Your task to perform on an android device: turn on location history Image 0: 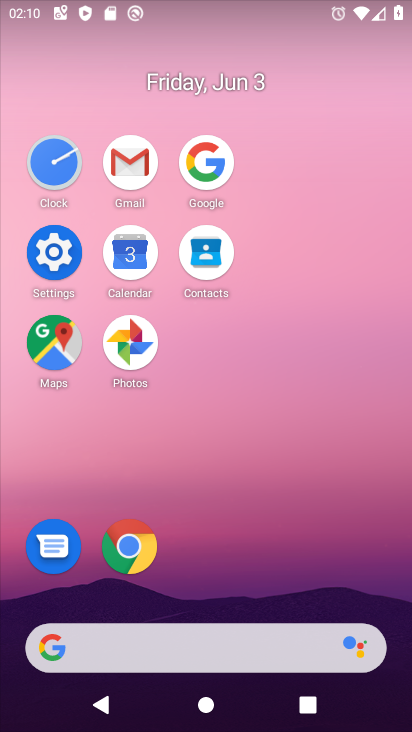
Step 0: click (56, 250)
Your task to perform on an android device: turn on location history Image 1: 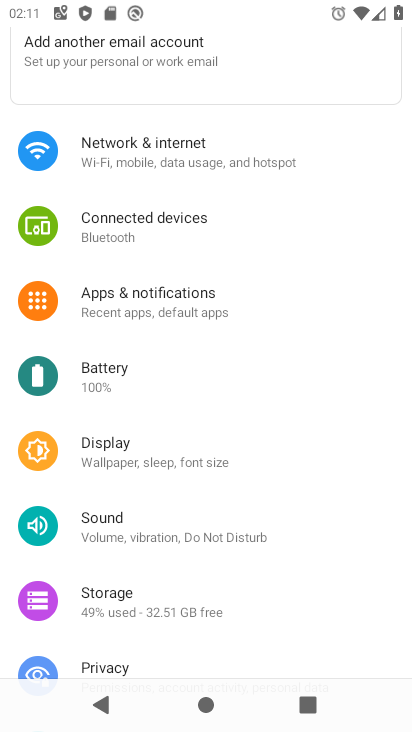
Step 1: drag from (362, 584) to (303, 201)
Your task to perform on an android device: turn on location history Image 2: 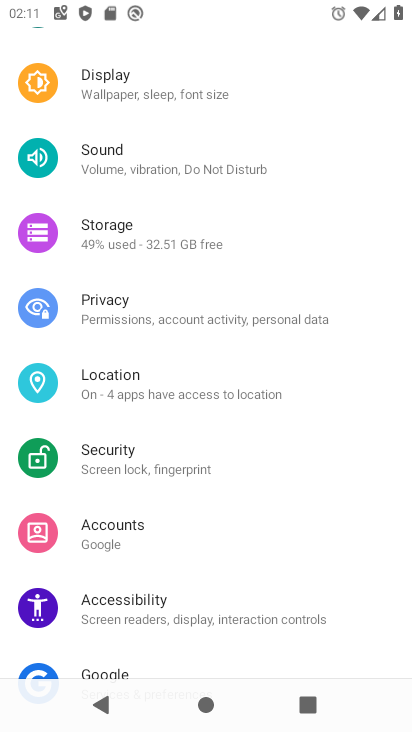
Step 2: click (180, 374)
Your task to perform on an android device: turn on location history Image 3: 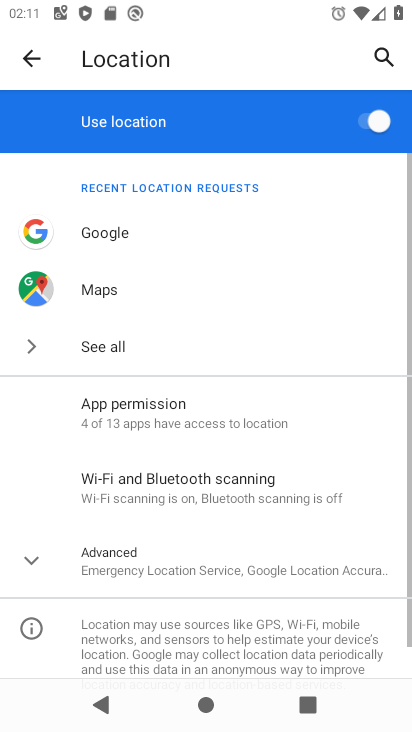
Step 3: click (152, 554)
Your task to perform on an android device: turn on location history Image 4: 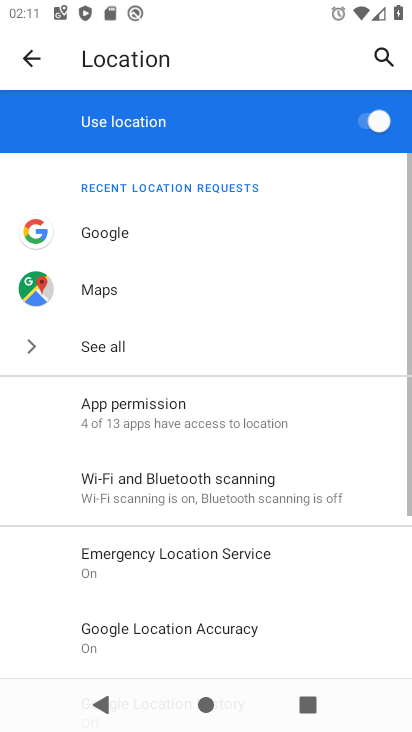
Step 4: drag from (152, 547) to (178, 275)
Your task to perform on an android device: turn on location history Image 5: 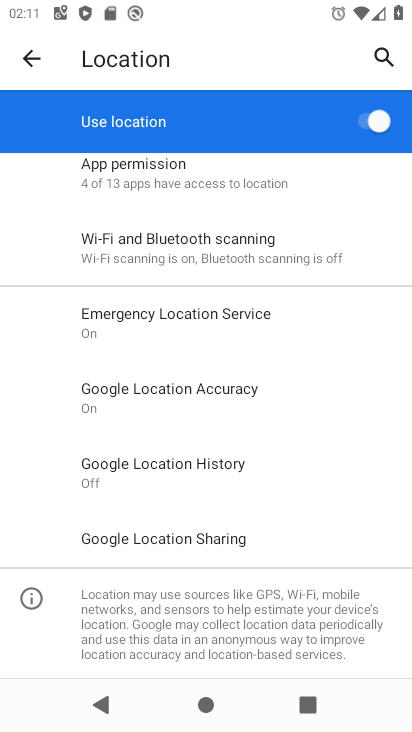
Step 5: click (179, 456)
Your task to perform on an android device: turn on location history Image 6: 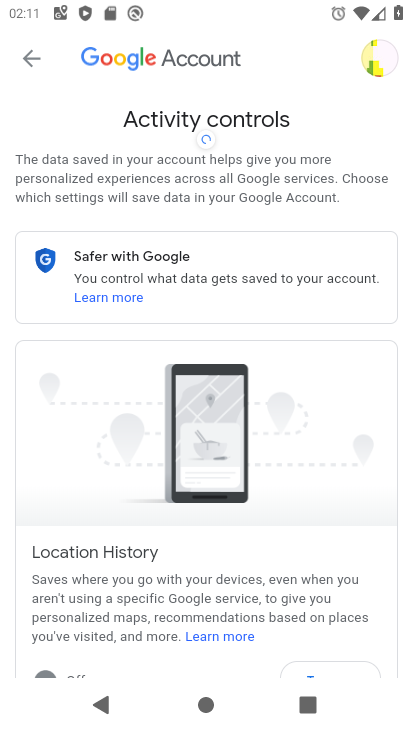
Step 6: drag from (246, 525) to (267, 308)
Your task to perform on an android device: turn on location history Image 7: 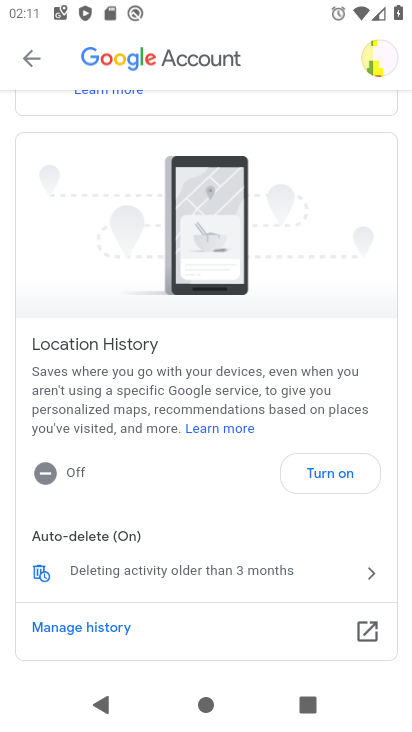
Step 7: click (308, 476)
Your task to perform on an android device: turn on location history Image 8: 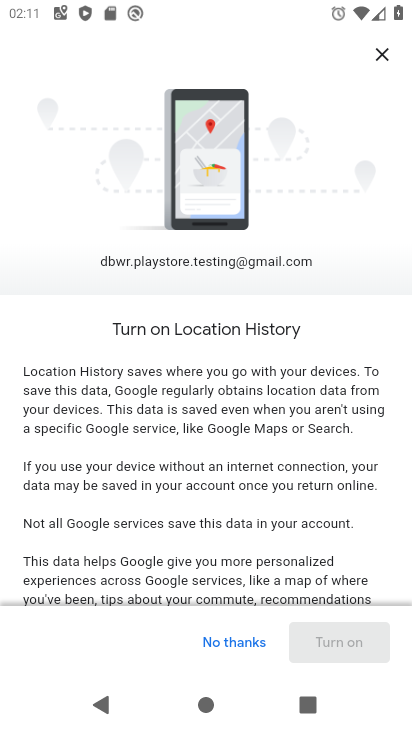
Step 8: drag from (308, 476) to (311, 263)
Your task to perform on an android device: turn on location history Image 9: 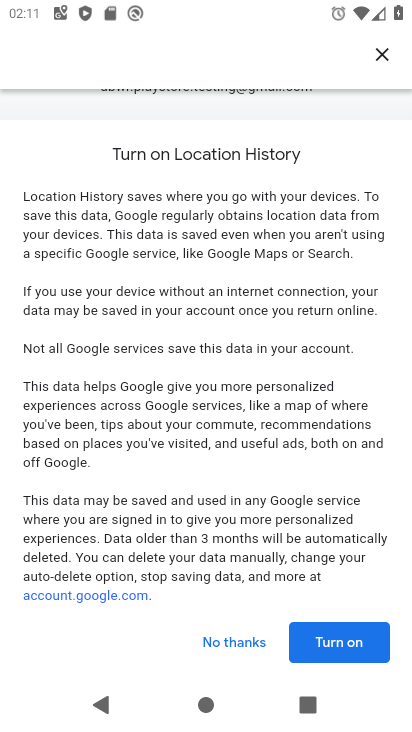
Step 9: drag from (291, 535) to (327, 238)
Your task to perform on an android device: turn on location history Image 10: 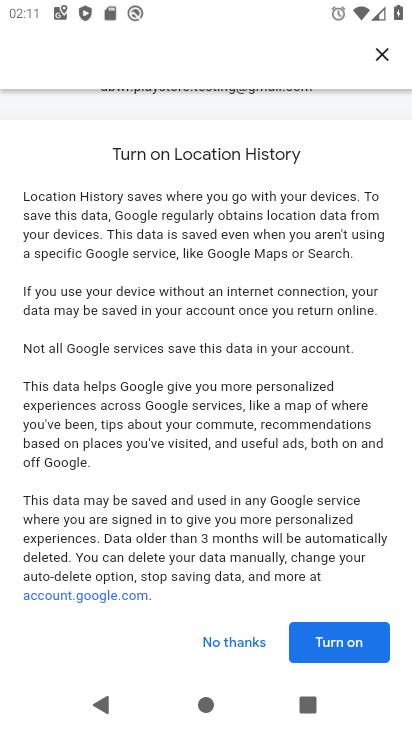
Step 10: click (328, 634)
Your task to perform on an android device: turn on location history Image 11: 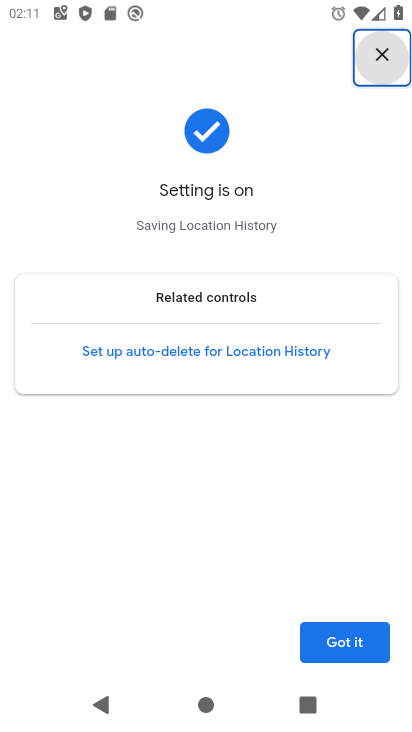
Step 11: click (335, 645)
Your task to perform on an android device: turn on location history Image 12: 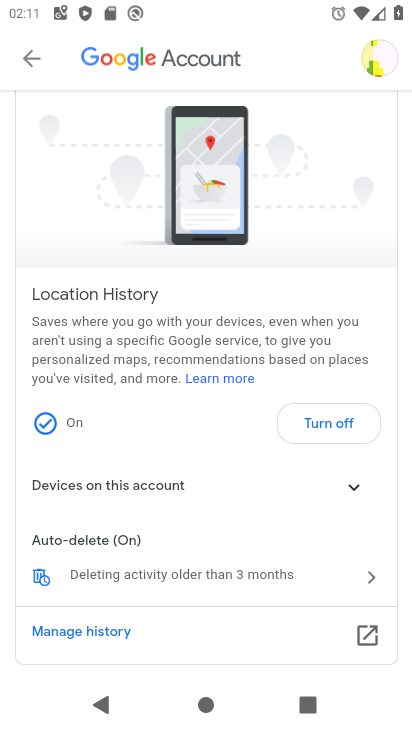
Step 12: task complete